Your task to perform on an android device: Go to calendar. Show me events next week Image 0: 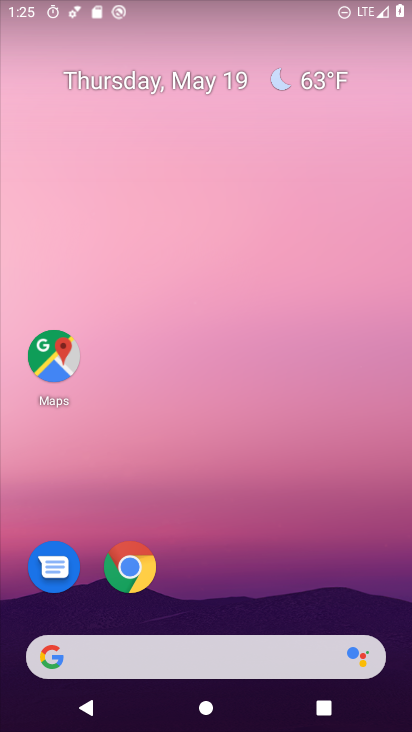
Step 0: press home button
Your task to perform on an android device: Go to calendar. Show me events next week Image 1: 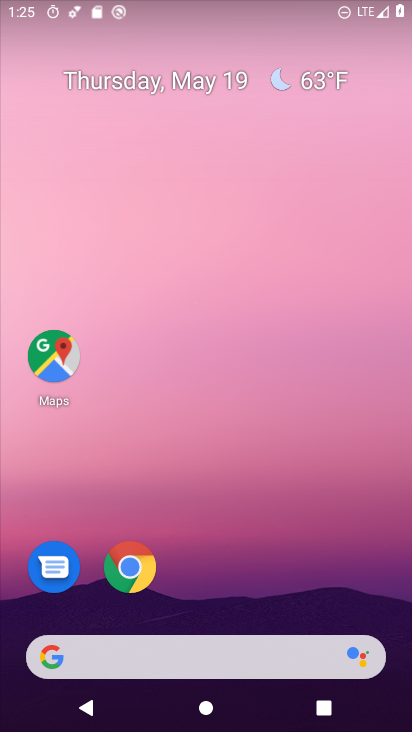
Step 1: drag from (159, 653) to (266, 67)
Your task to perform on an android device: Go to calendar. Show me events next week Image 2: 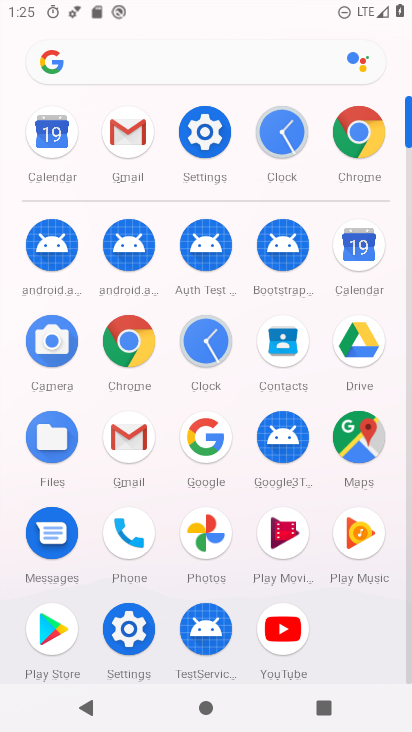
Step 2: click (358, 254)
Your task to perform on an android device: Go to calendar. Show me events next week Image 3: 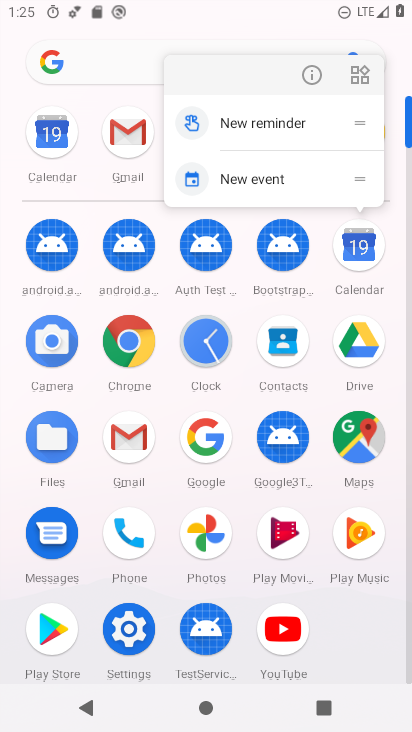
Step 3: click (349, 259)
Your task to perform on an android device: Go to calendar. Show me events next week Image 4: 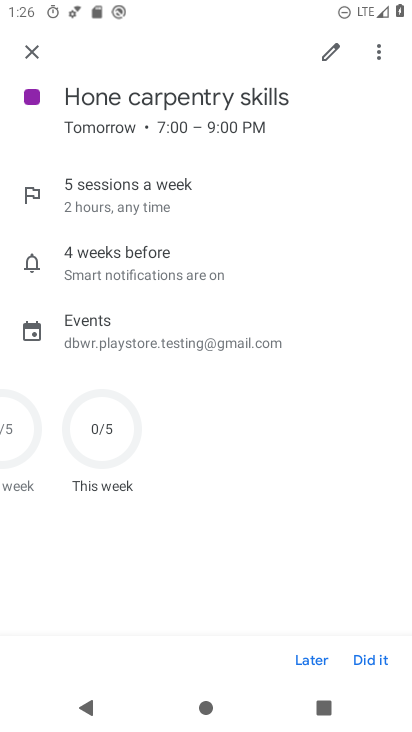
Step 4: click (30, 52)
Your task to perform on an android device: Go to calendar. Show me events next week Image 5: 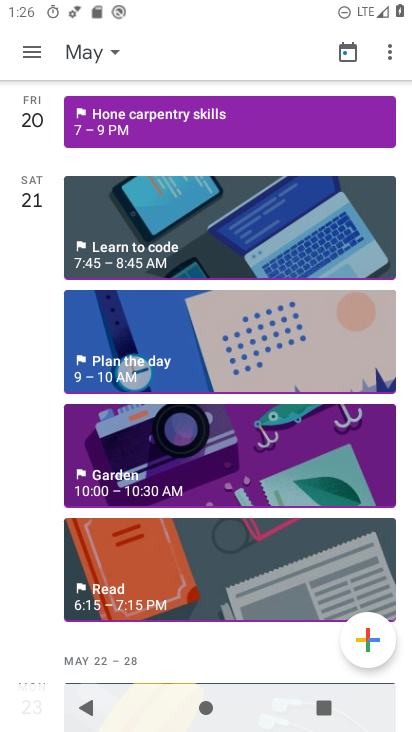
Step 5: click (81, 51)
Your task to perform on an android device: Go to calendar. Show me events next week Image 6: 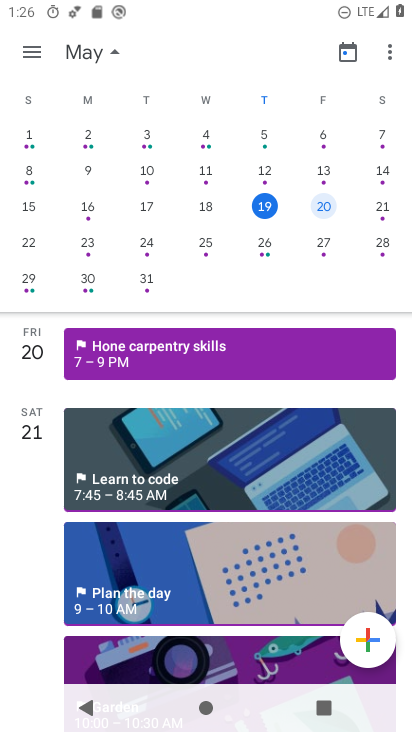
Step 6: click (31, 249)
Your task to perform on an android device: Go to calendar. Show me events next week Image 7: 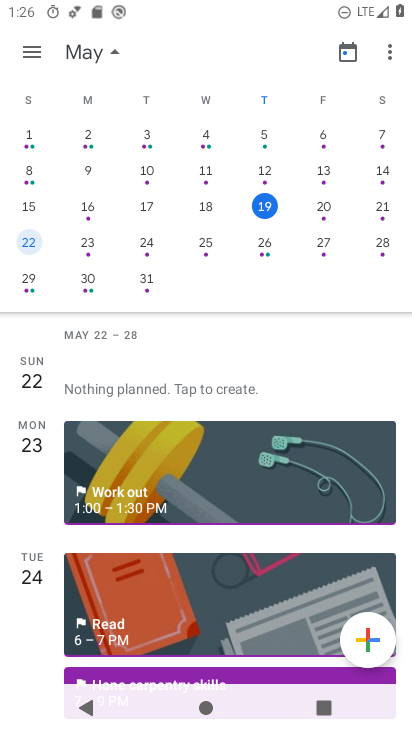
Step 7: click (28, 48)
Your task to perform on an android device: Go to calendar. Show me events next week Image 8: 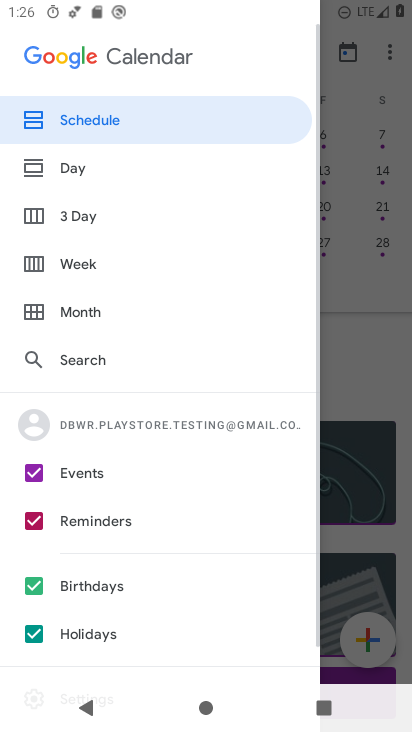
Step 8: click (92, 268)
Your task to perform on an android device: Go to calendar. Show me events next week Image 9: 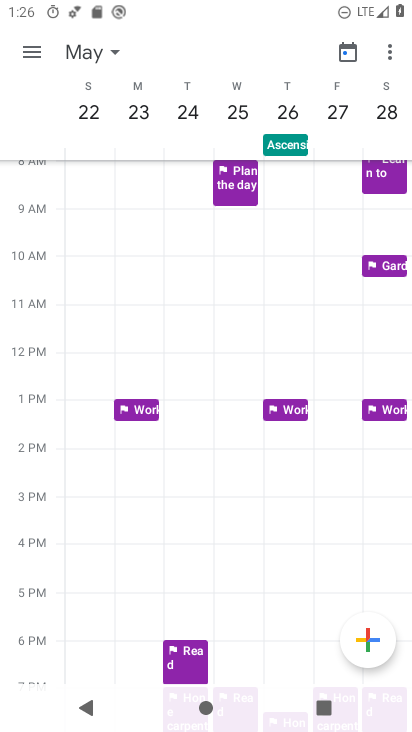
Step 9: task complete